Your task to perform on an android device: change your default location settings in chrome Image 0: 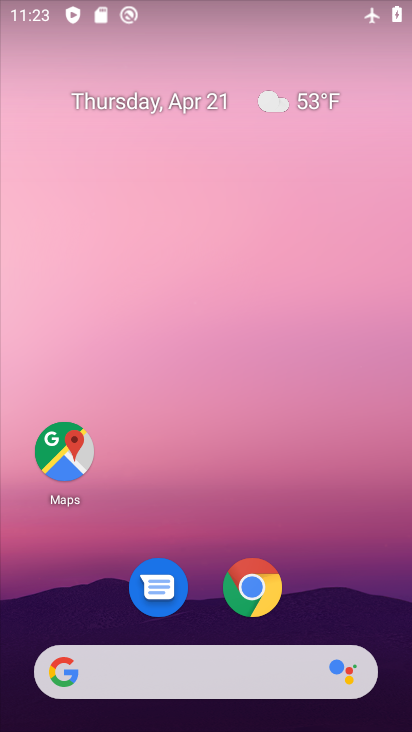
Step 0: click (259, 587)
Your task to perform on an android device: change your default location settings in chrome Image 1: 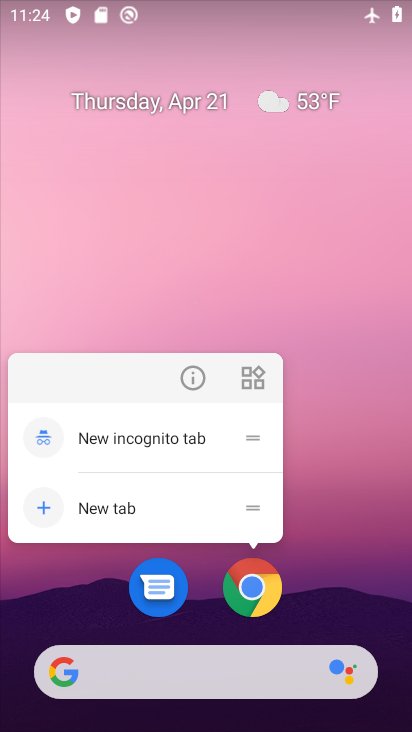
Step 1: click (246, 593)
Your task to perform on an android device: change your default location settings in chrome Image 2: 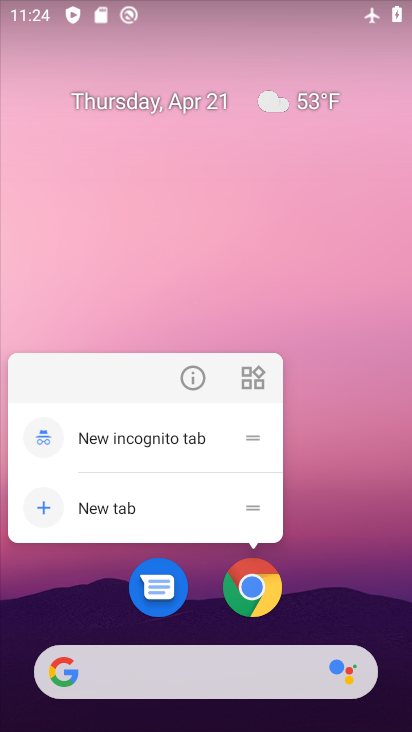
Step 2: click (250, 591)
Your task to perform on an android device: change your default location settings in chrome Image 3: 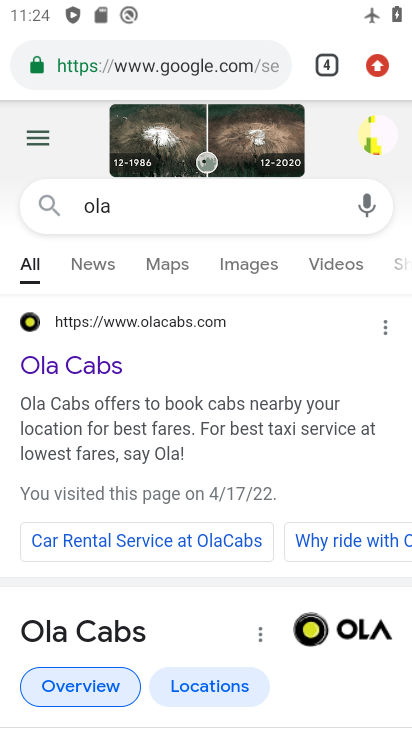
Step 3: drag from (374, 68) to (145, 622)
Your task to perform on an android device: change your default location settings in chrome Image 4: 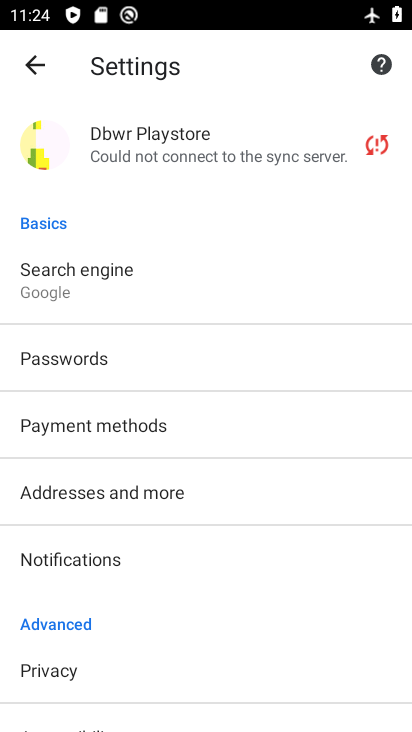
Step 4: drag from (189, 621) to (305, 165)
Your task to perform on an android device: change your default location settings in chrome Image 5: 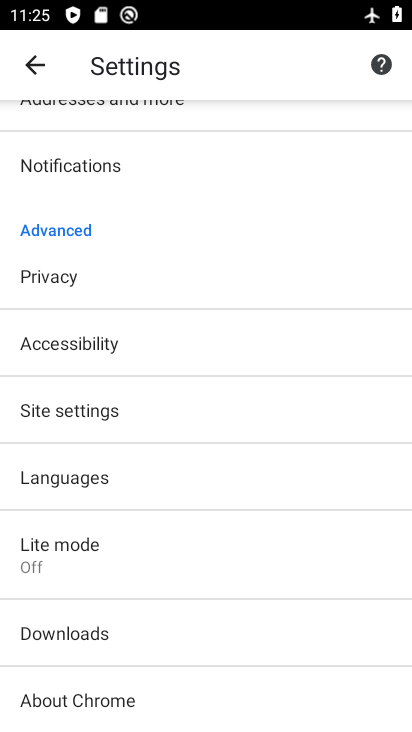
Step 5: click (163, 415)
Your task to perform on an android device: change your default location settings in chrome Image 6: 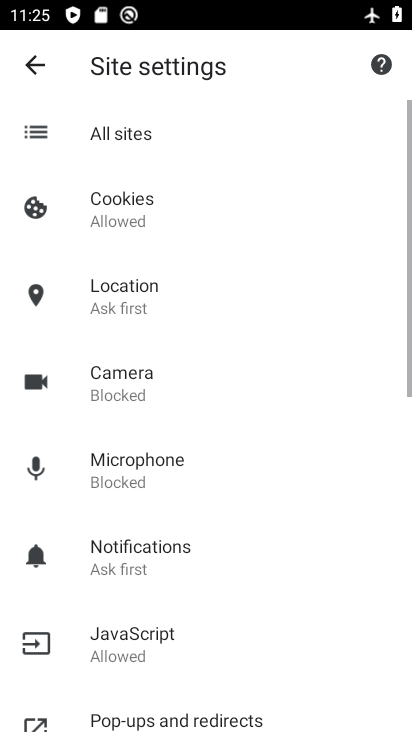
Step 6: click (152, 276)
Your task to perform on an android device: change your default location settings in chrome Image 7: 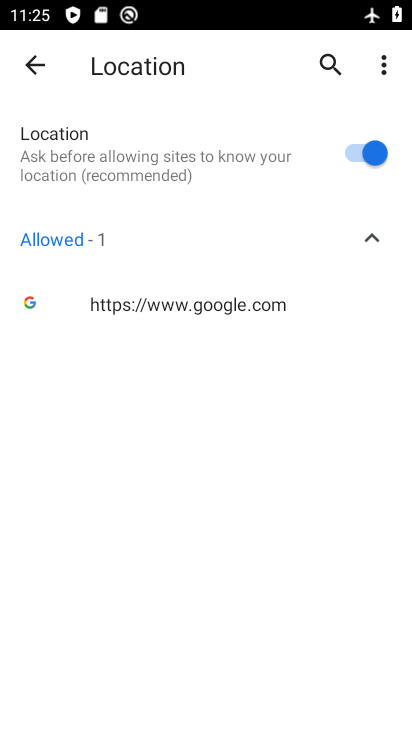
Step 7: click (197, 302)
Your task to perform on an android device: change your default location settings in chrome Image 8: 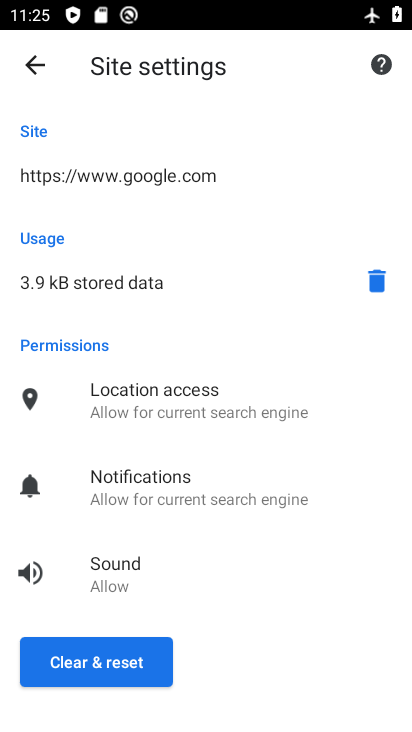
Step 8: click (200, 403)
Your task to perform on an android device: change your default location settings in chrome Image 9: 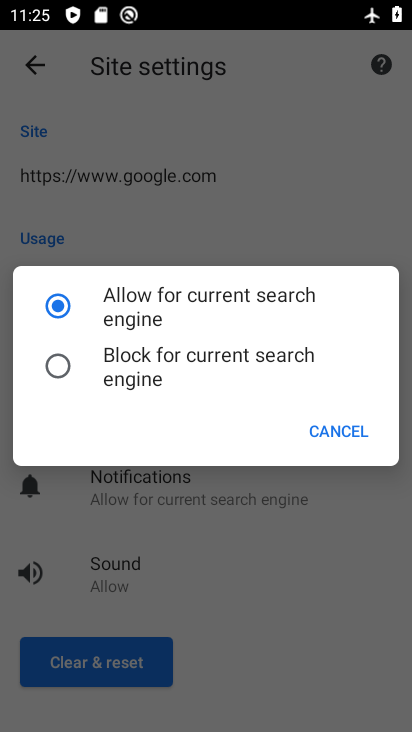
Step 9: click (100, 364)
Your task to perform on an android device: change your default location settings in chrome Image 10: 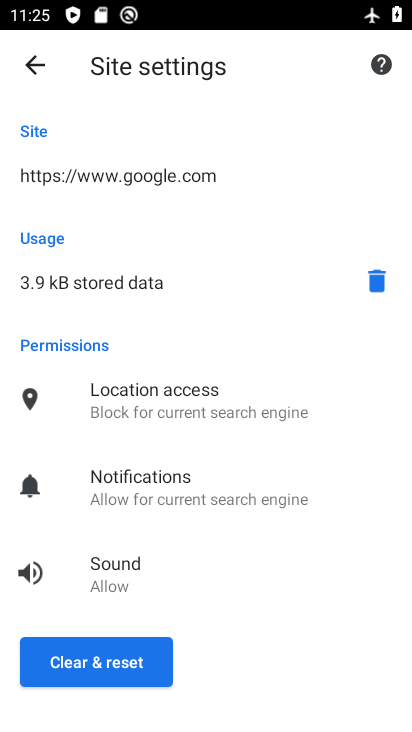
Step 10: task complete